Your task to perform on an android device: delete a single message in the gmail app Image 0: 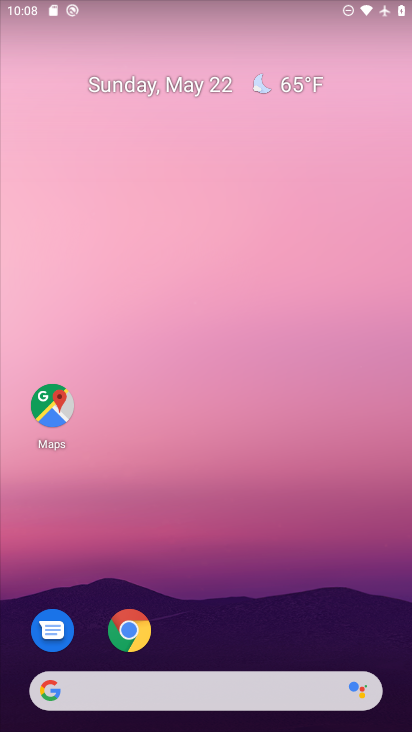
Step 0: press home button
Your task to perform on an android device: delete a single message in the gmail app Image 1: 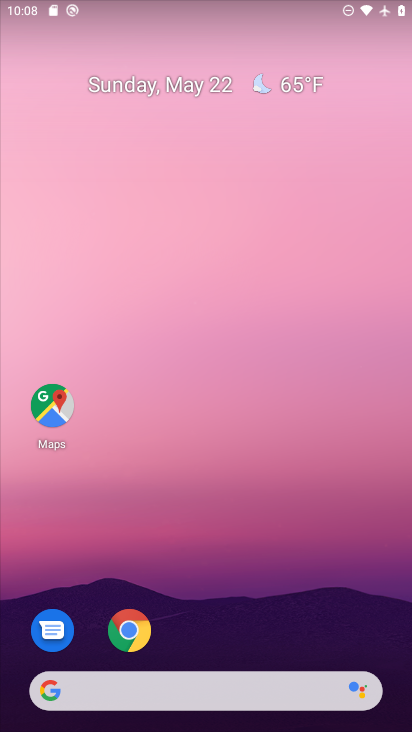
Step 1: drag from (119, 702) to (316, 85)
Your task to perform on an android device: delete a single message in the gmail app Image 2: 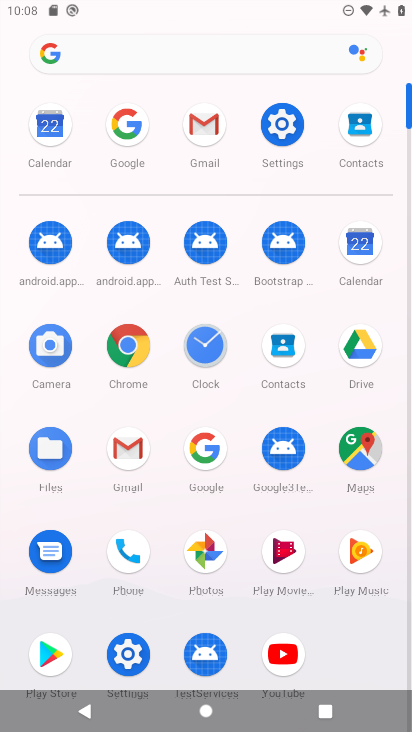
Step 2: click (207, 133)
Your task to perform on an android device: delete a single message in the gmail app Image 3: 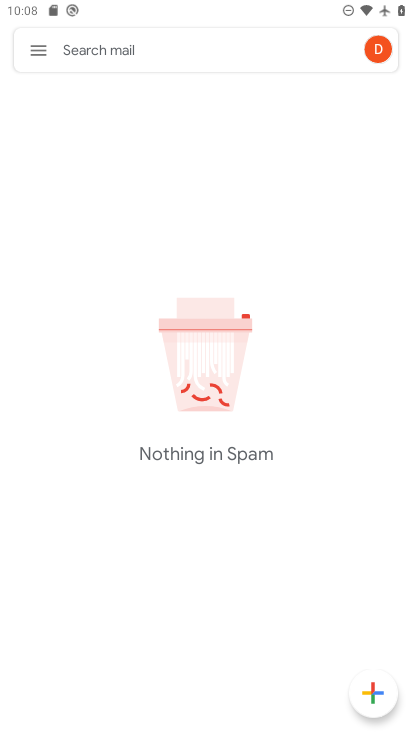
Step 3: click (37, 52)
Your task to perform on an android device: delete a single message in the gmail app Image 4: 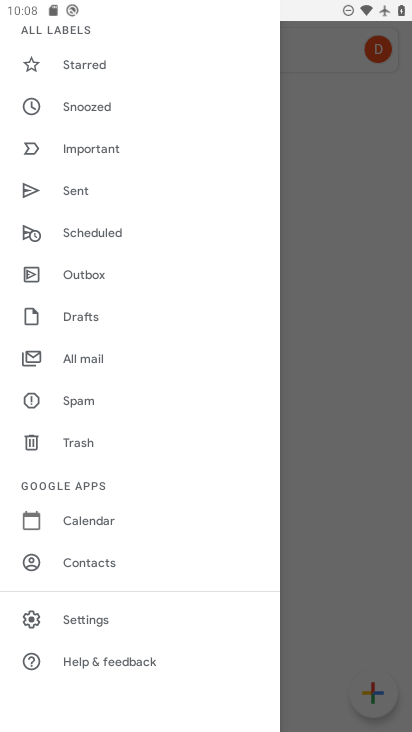
Step 4: click (106, 356)
Your task to perform on an android device: delete a single message in the gmail app Image 5: 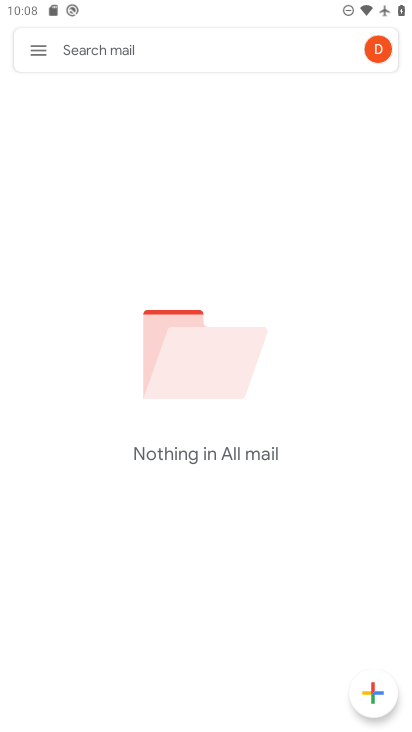
Step 5: task complete